Your task to perform on an android device: Open the Play Movies app and select the watchlist tab. Image 0: 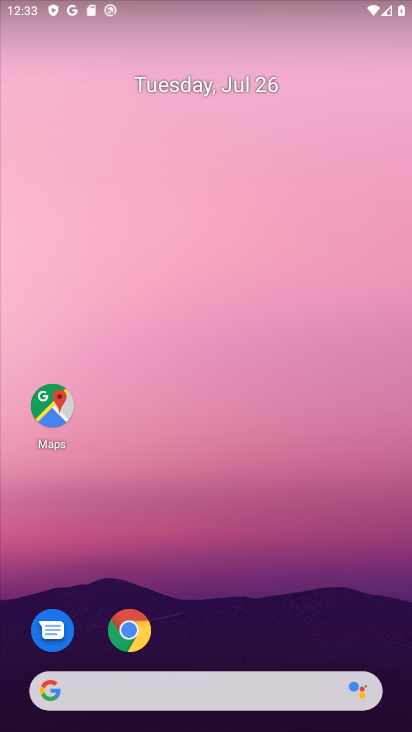
Step 0: drag from (181, 588) to (46, 1)
Your task to perform on an android device: Open the Play Movies app and select the watchlist tab. Image 1: 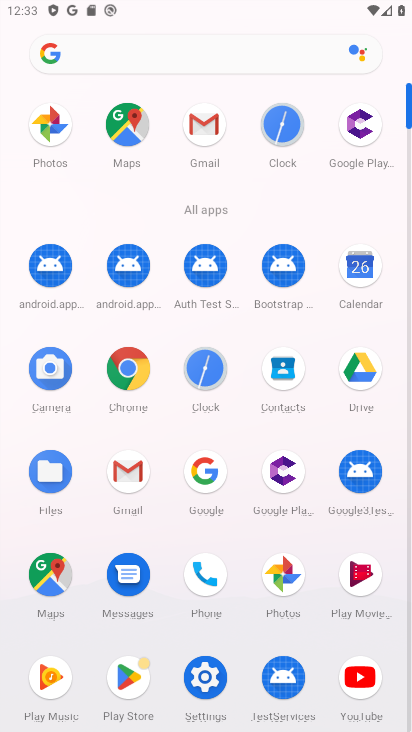
Step 1: drag from (371, 574) to (243, 295)
Your task to perform on an android device: Open the Play Movies app and select the watchlist tab. Image 2: 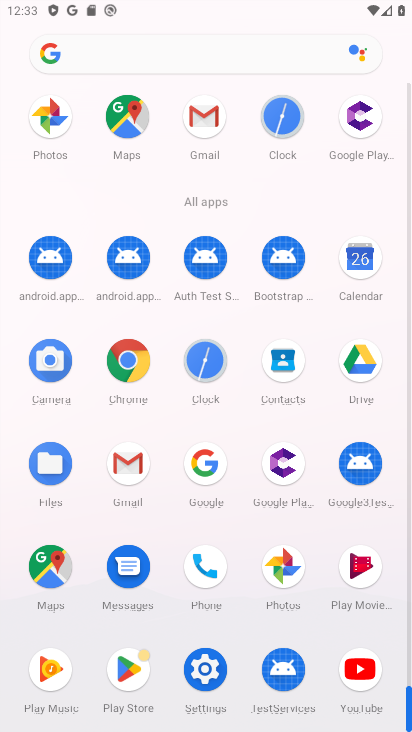
Step 2: click (361, 582)
Your task to perform on an android device: Open the Play Movies app and select the watchlist tab. Image 3: 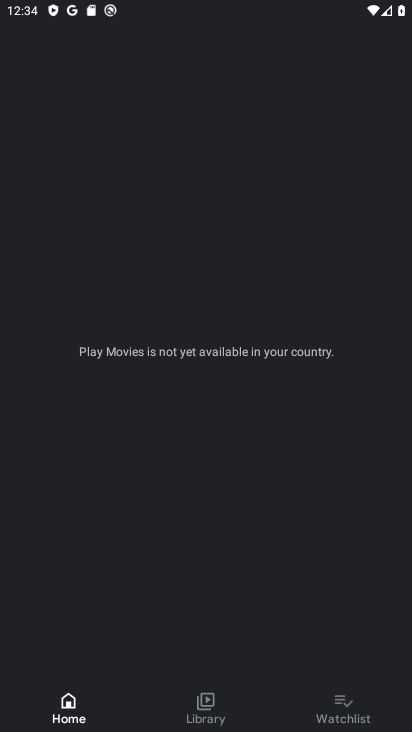
Step 3: click (363, 714)
Your task to perform on an android device: Open the Play Movies app and select the watchlist tab. Image 4: 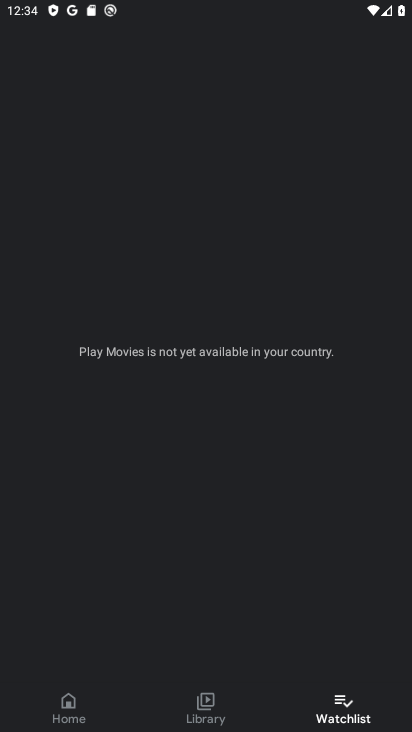
Step 4: task complete